Your task to perform on an android device: Open Google Chrome Image 0: 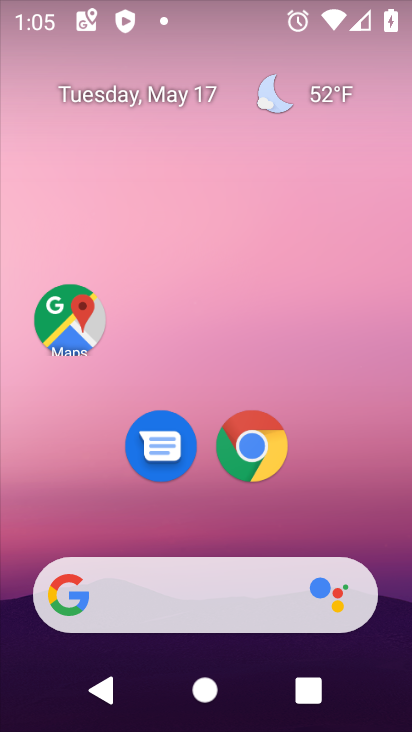
Step 0: click (244, 437)
Your task to perform on an android device: Open Google Chrome Image 1: 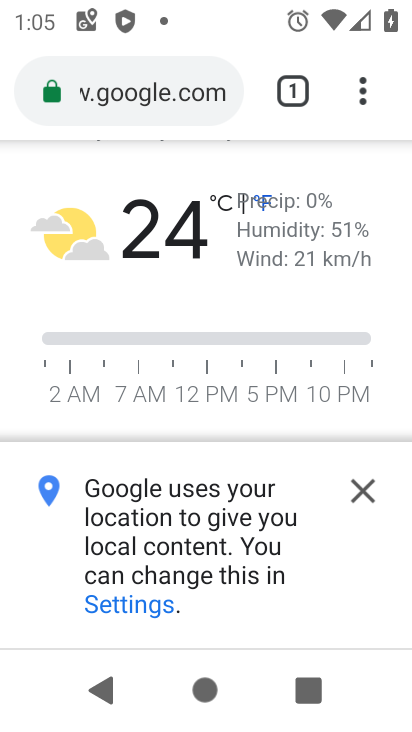
Step 1: task complete